Your task to perform on an android device: turn on location history Image 0: 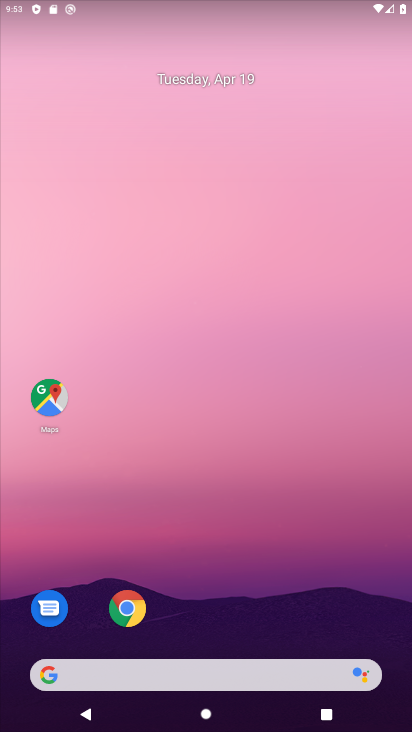
Step 0: drag from (338, 394) to (335, 112)
Your task to perform on an android device: turn on location history Image 1: 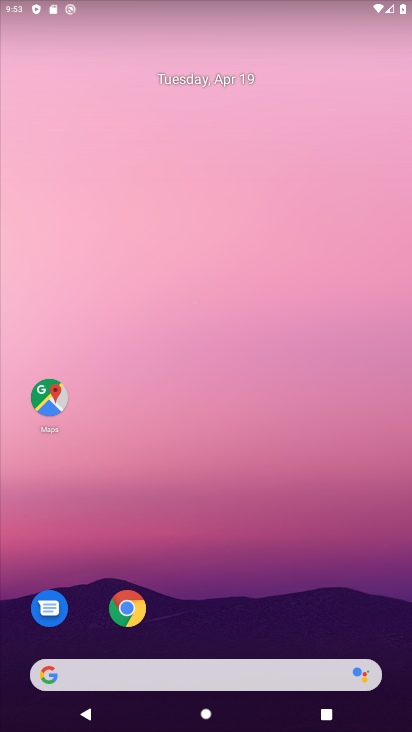
Step 1: drag from (361, 565) to (331, 206)
Your task to perform on an android device: turn on location history Image 2: 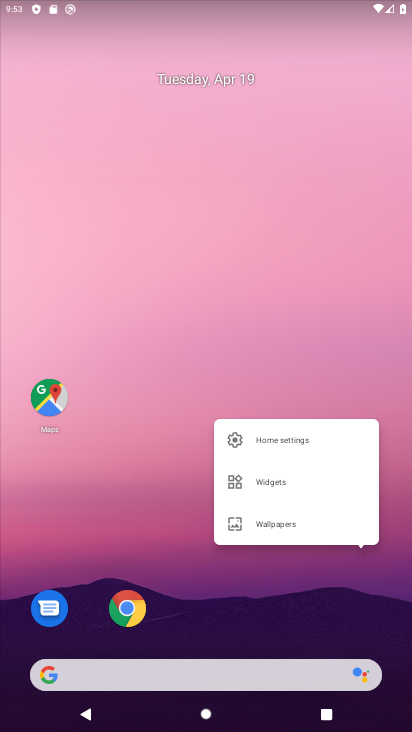
Step 2: click (363, 356)
Your task to perform on an android device: turn on location history Image 3: 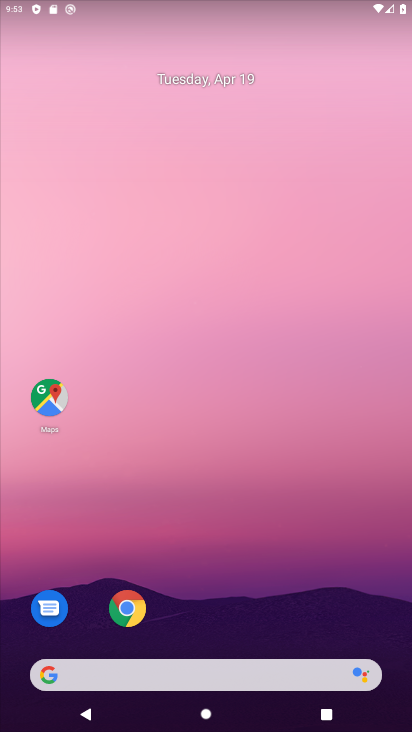
Step 3: drag from (384, 634) to (347, 139)
Your task to perform on an android device: turn on location history Image 4: 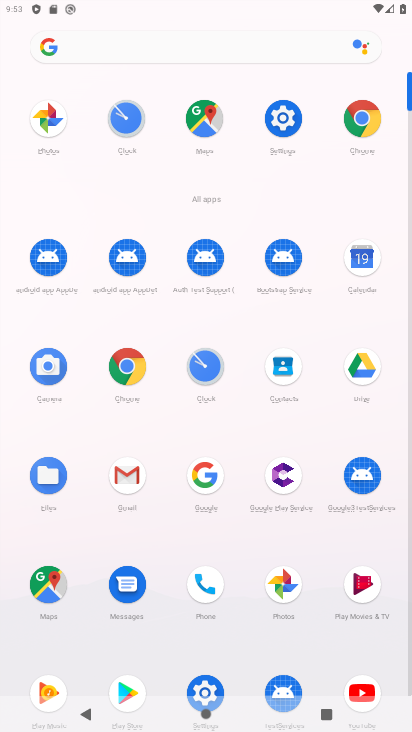
Step 4: click (271, 112)
Your task to perform on an android device: turn on location history Image 5: 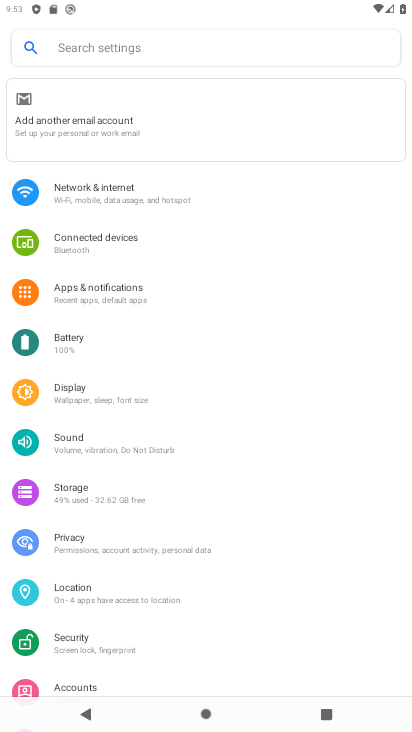
Step 5: click (62, 586)
Your task to perform on an android device: turn on location history Image 6: 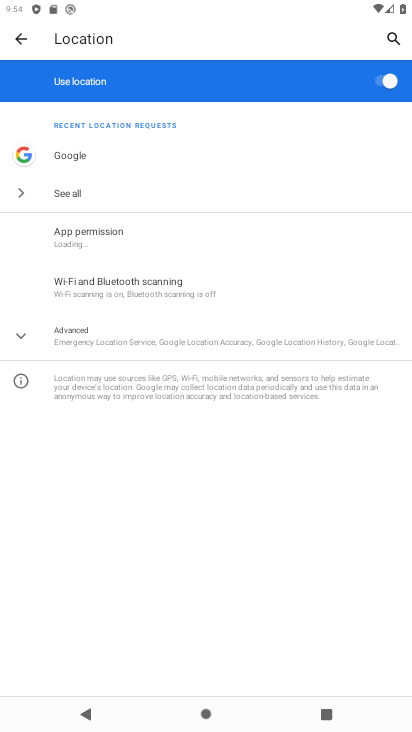
Step 6: click (62, 334)
Your task to perform on an android device: turn on location history Image 7: 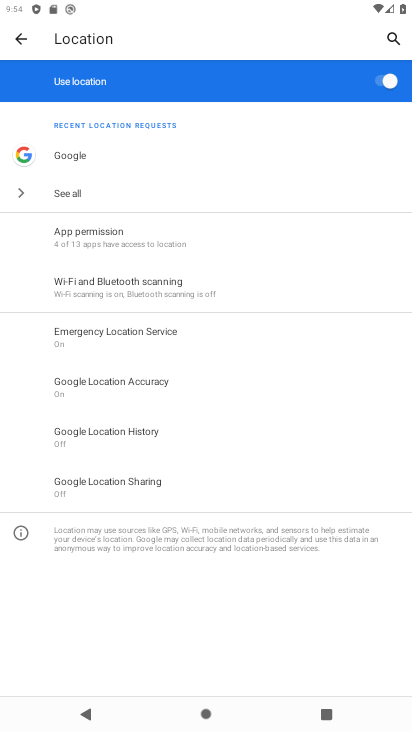
Step 7: click (102, 432)
Your task to perform on an android device: turn on location history Image 8: 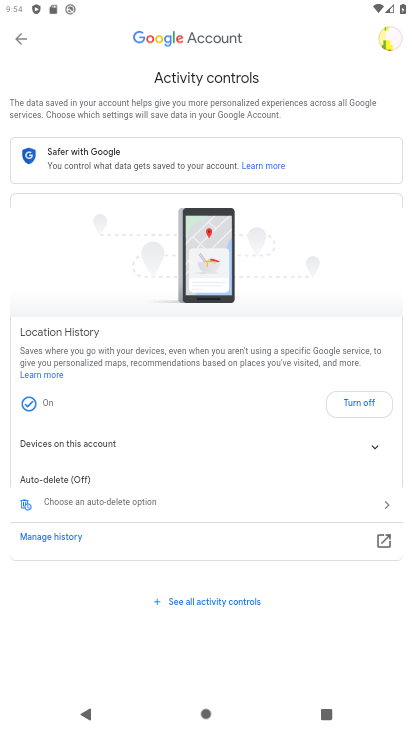
Step 8: click (349, 398)
Your task to perform on an android device: turn on location history Image 9: 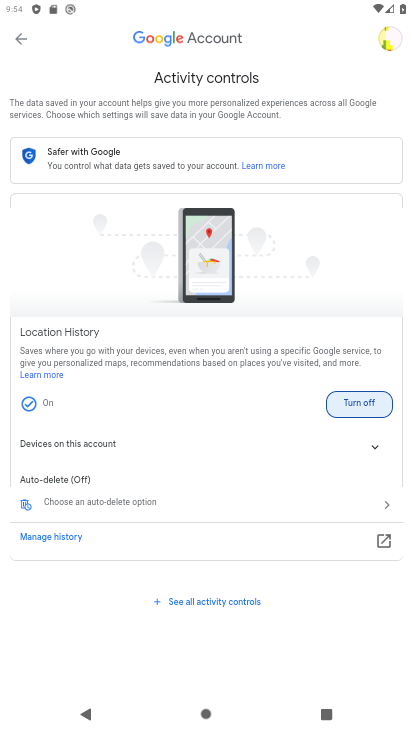
Step 9: click (354, 400)
Your task to perform on an android device: turn on location history Image 10: 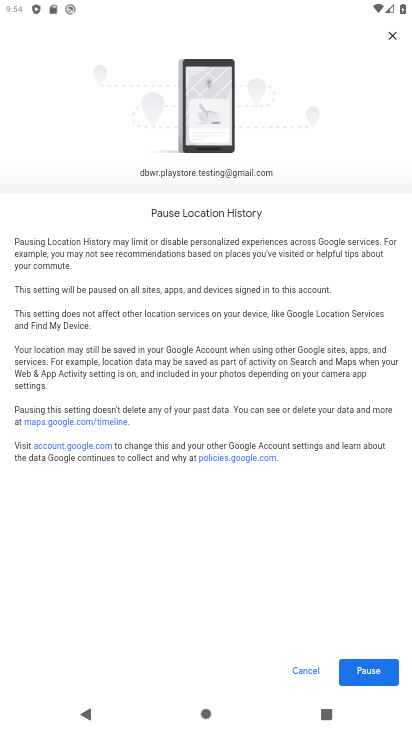
Step 10: click (361, 667)
Your task to perform on an android device: turn on location history Image 11: 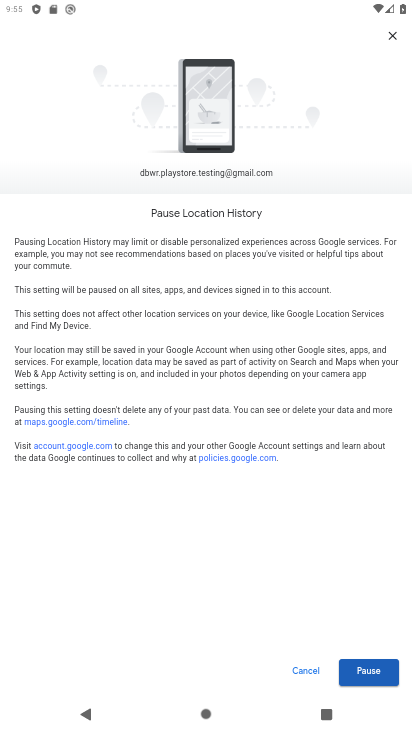
Step 11: click (365, 667)
Your task to perform on an android device: turn on location history Image 12: 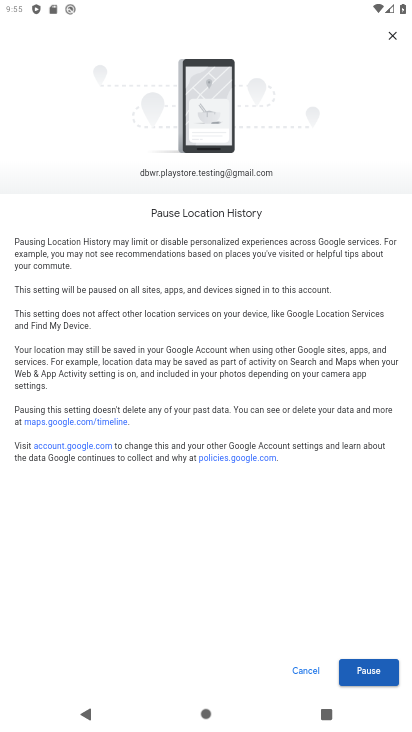
Step 12: drag from (217, 598) to (220, 234)
Your task to perform on an android device: turn on location history Image 13: 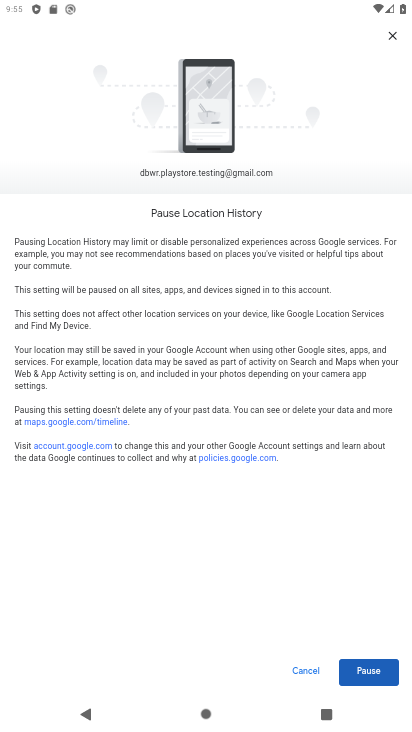
Step 13: drag from (257, 129) to (264, 605)
Your task to perform on an android device: turn on location history Image 14: 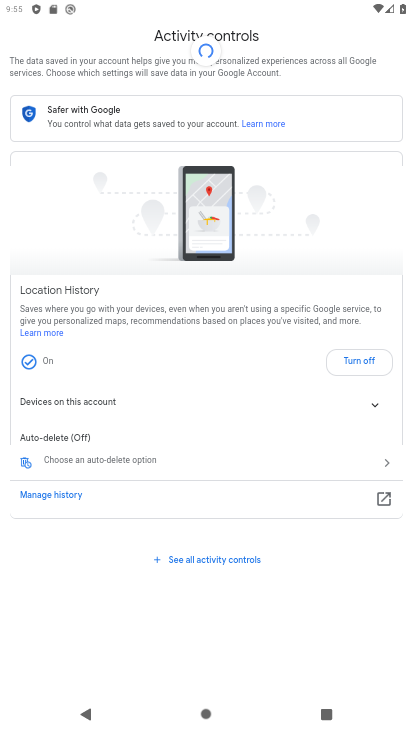
Step 14: click (371, 674)
Your task to perform on an android device: turn on location history Image 15: 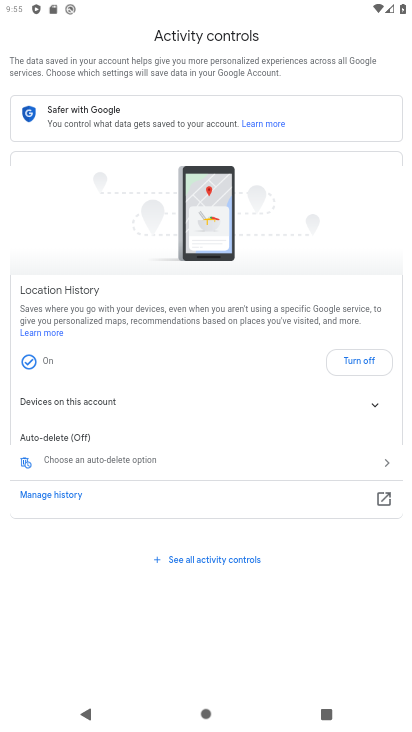
Step 15: task complete